Your task to perform on an android device: Search for pizza restaurants on Maps Image 0: 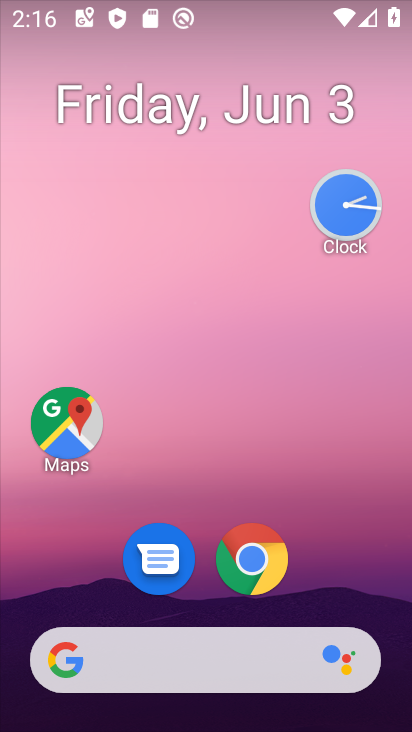
Step 0: click (100, 418)
Your task to perform on an android device: Search for pizza restaurants on Maps Image 1: 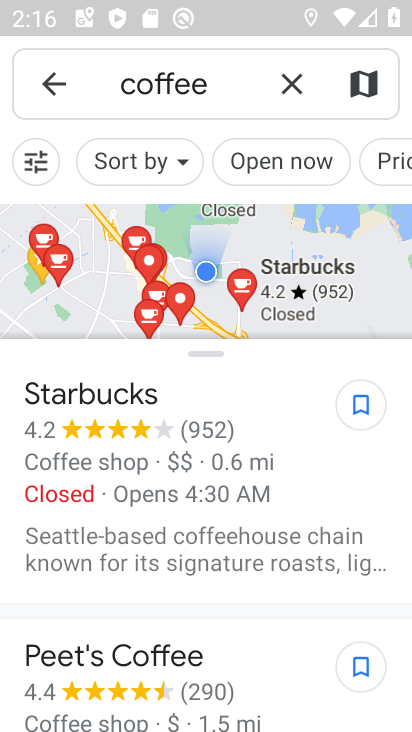
Step 1: click (291, 86)
Your task to perform on an android device: Search for pizza restaurants on Maps Image 2: 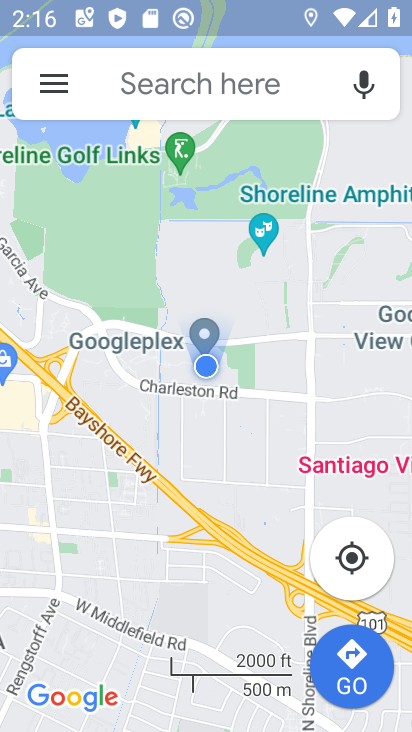
Step 2: click (231, 103)
Your task to perform on an android device: Search for pizza restaurants on Maps Image 3: 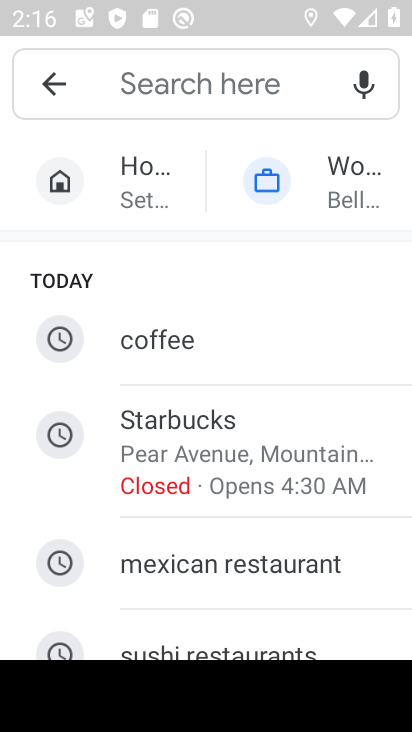
Step 3: type "pizza"
Your task to perform on an android device: Search for pizza restaurants on Maps Image 4: 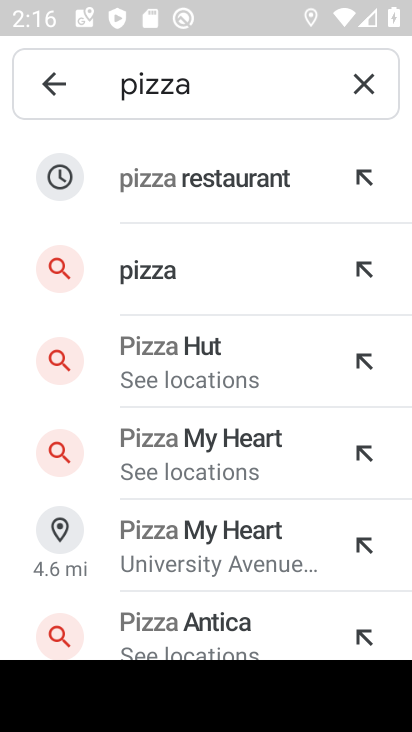
Step 4: click (281, 192)
Your task to perform on an android device: Search for pizza restaurants on Maps Image 5: 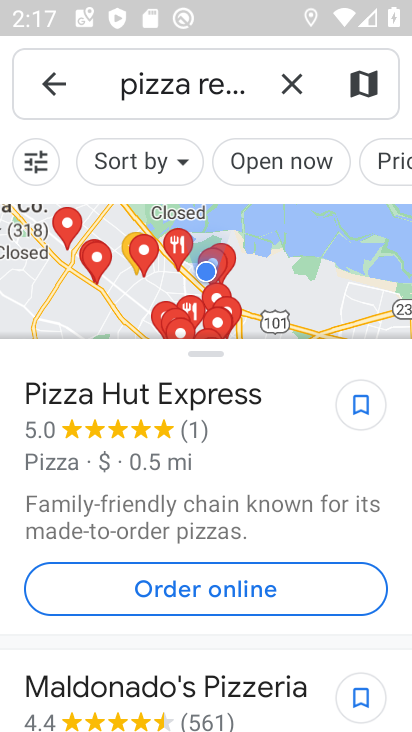
Step 5: task complete